Your task to perform on an android device: Open the calendar and show me this week's events? Image 0: 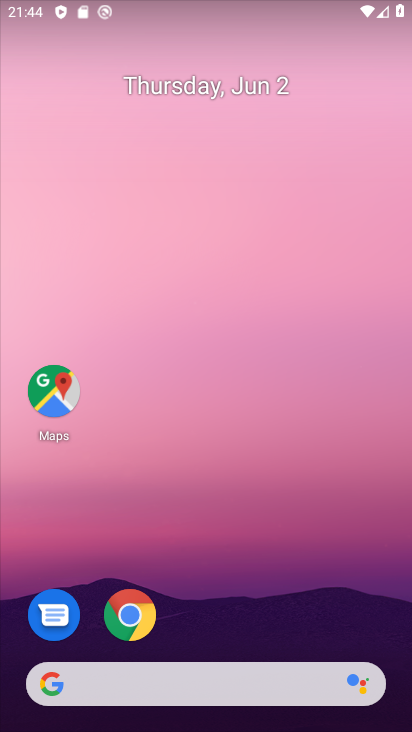
Step 0: drag from (184, 542) to (225, 250)
Your task to perform on an android device: Open the calendar and show me this week's events? Image 1: 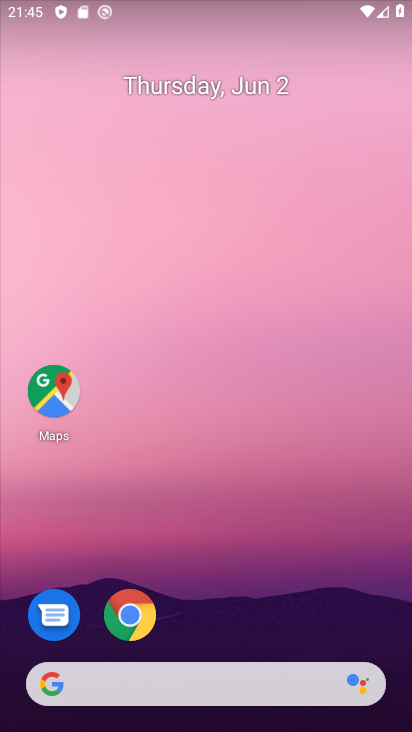
Step 1: drag from (208, 621) to (281, 170)
Your task to perform on an android device: Open the calendar and show me this week's events? Image 2: 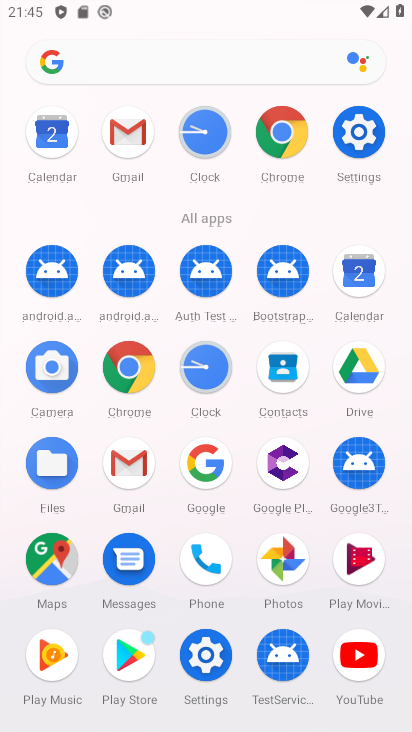
Step 2: click (357, 273)
Your task to perform on an android device: Open the calendar and show me this week's events? Image 3: 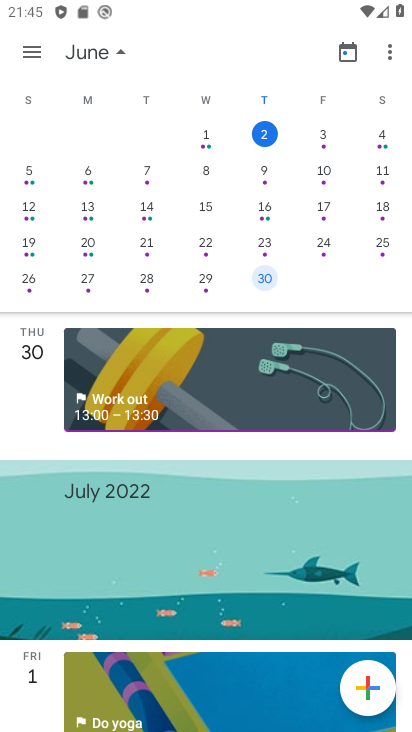
Step 3: click (312, 139)
Your task to perform on an android device: Open the calendar and show me this week's events? Image 4: 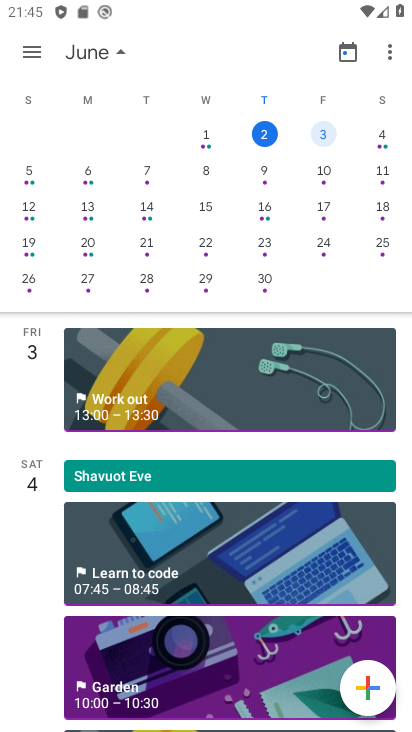
Step 4: click (383, 133)
Your task to perform on an android device: Open the calendar and show me this week's events? Image 5: 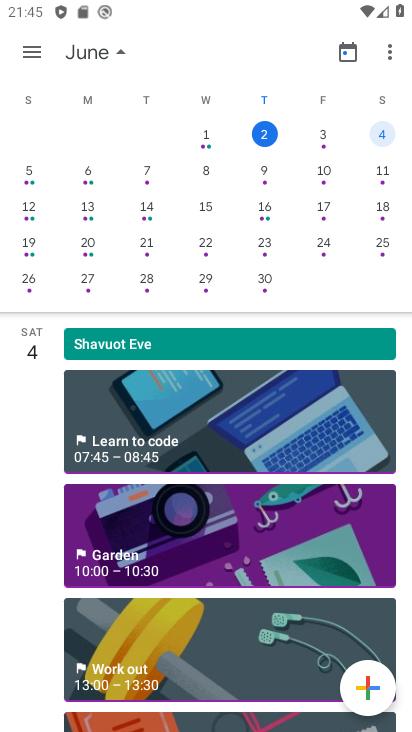
Step 5: task complete